Your task to perform on an android device: star an email in the gmail app Image 0: 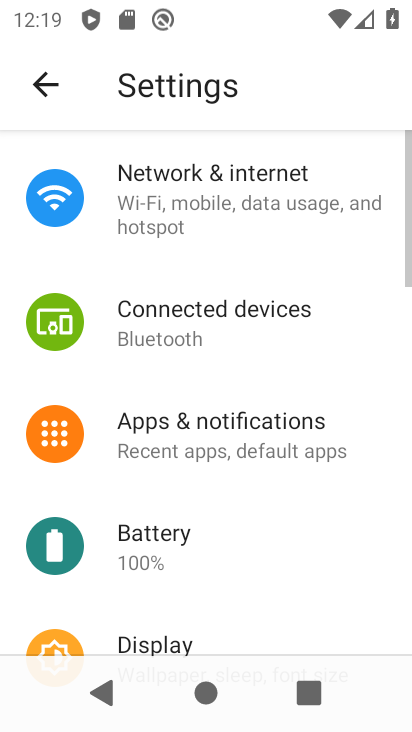
Step 0: press home button
Your task to perform on an android device: star an email in the gmail app Image 1: 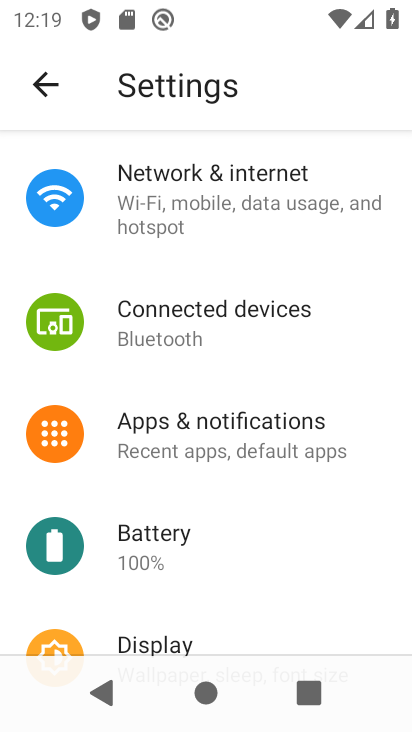
Step 1: press home button
Your task to perform on an android device: star an email in the gmail app Image 2: 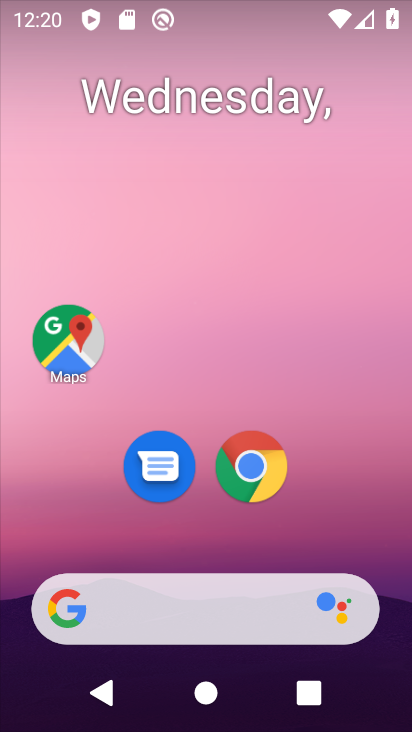
Step 2: drag from (72, 520) to (143, 114)
Your task to perform on an android device: star an email in the gmail app Image 3: 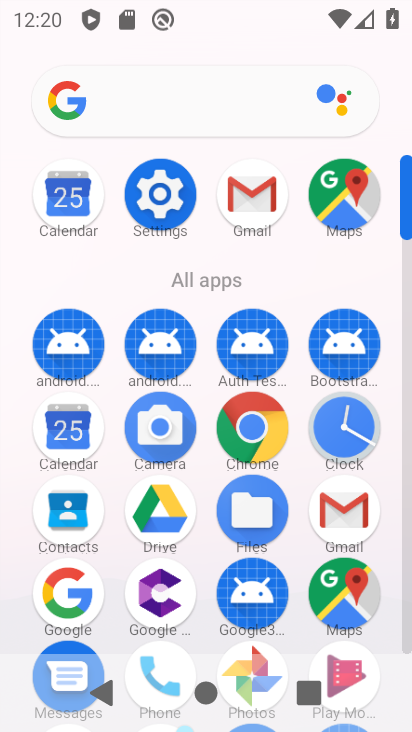
Step 3: press home button
Your task to perform on an android device: star an email in the gmail app Image 4: 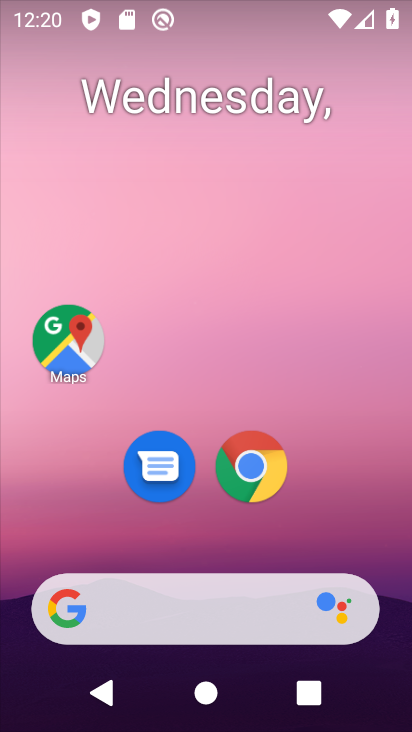
Step 4: drag from (327, 511) to (370, 94)
Your task to perform on an android device: star an email in the gmail app Image 5: 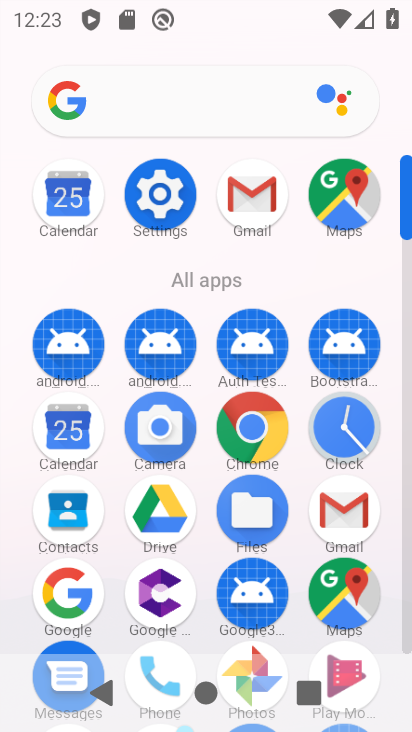
Step 5: click (223, 195)
Your task to perform on an android device: star an email in the gmail app Image 6: 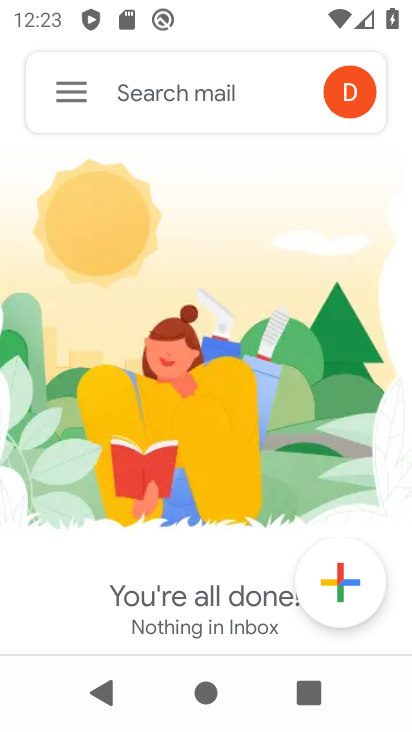
Step 6: click (67, 99)
Your task to perform on an android device: star an email in the gmail app Image 7: 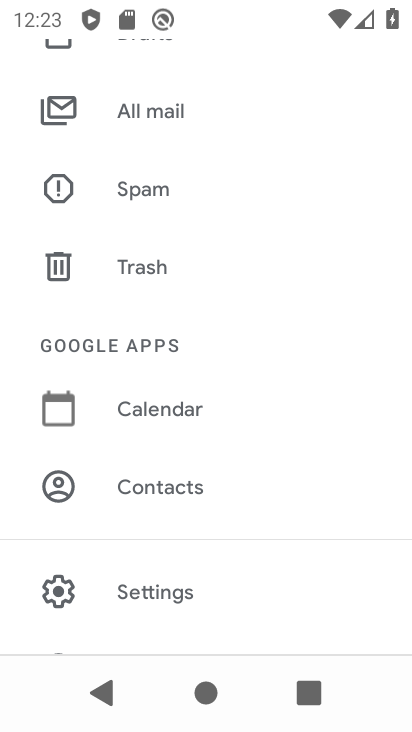
Step 7: task complete